Your task to perform on an android device: change the clock display to digital Image 0: 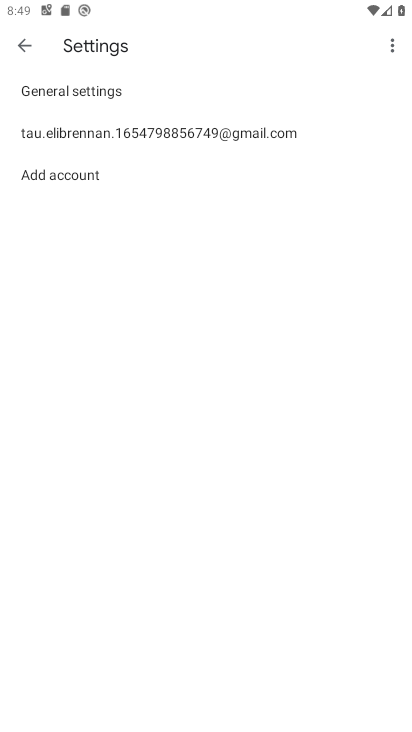
Step 0: press home button
Your task to perform on an android device: change the clock display to digital Image 1: 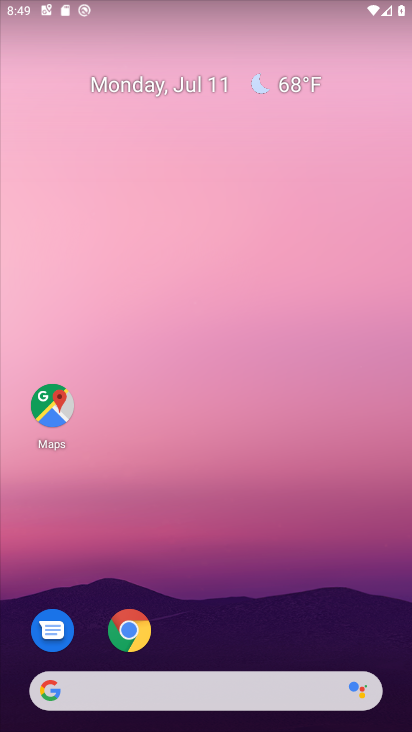
Step 1: drag from (216, 673) to (183, 2)
Your task to perform on an android device: change the clock display to digital Image 2: 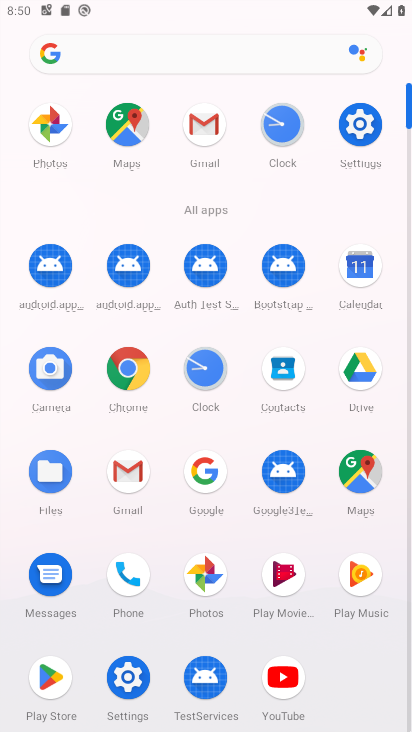
Step 2: click (202, 366)
Your task to perform on an android device: change the clock display to digital Image 3: 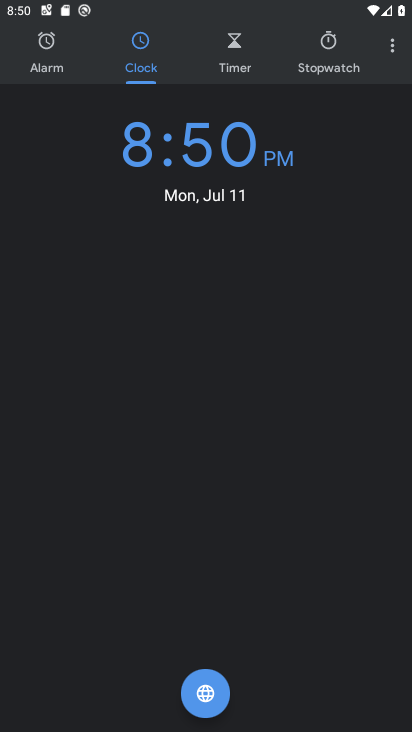
Step 3: click (387, 47)
Your task to perform on an android device: change the clock display to digital Image 4: 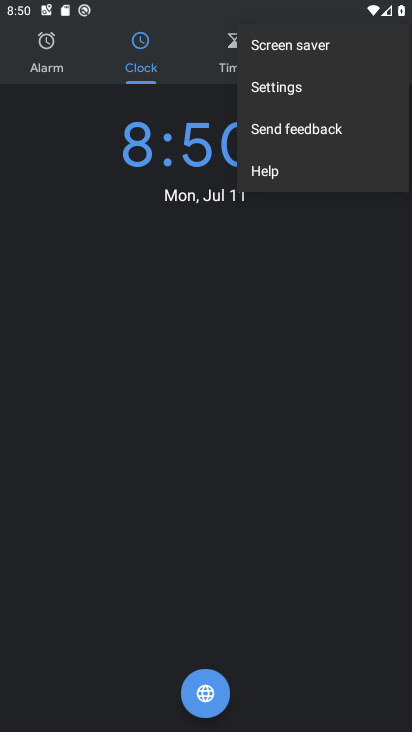
Step 4: click (273, 88)
Your task to perform on an android device: change the clock display to digital Image 5: 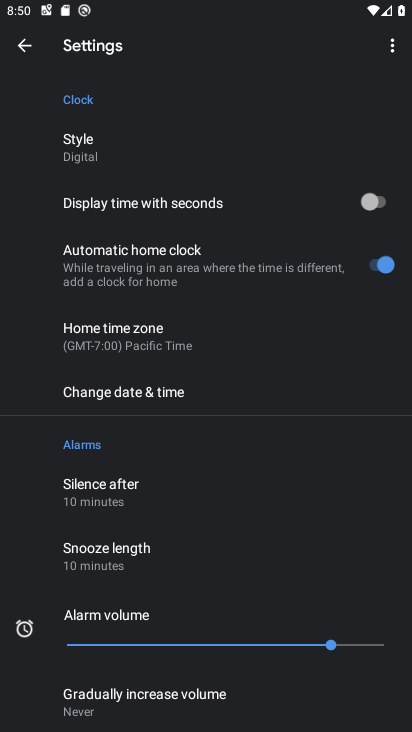
Step 5: click (90, 160)
Your task to perform on an android device: change the clock display to digital Image 6: 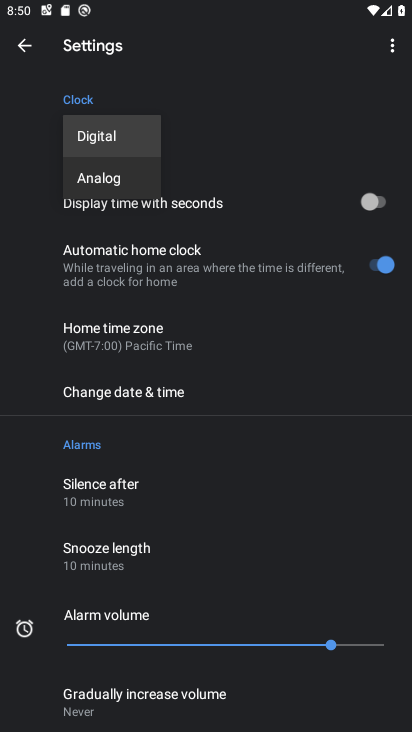
Step 6: task complete